Your task to perform on an android device: uninstall "Messenger Lite" Image 0: 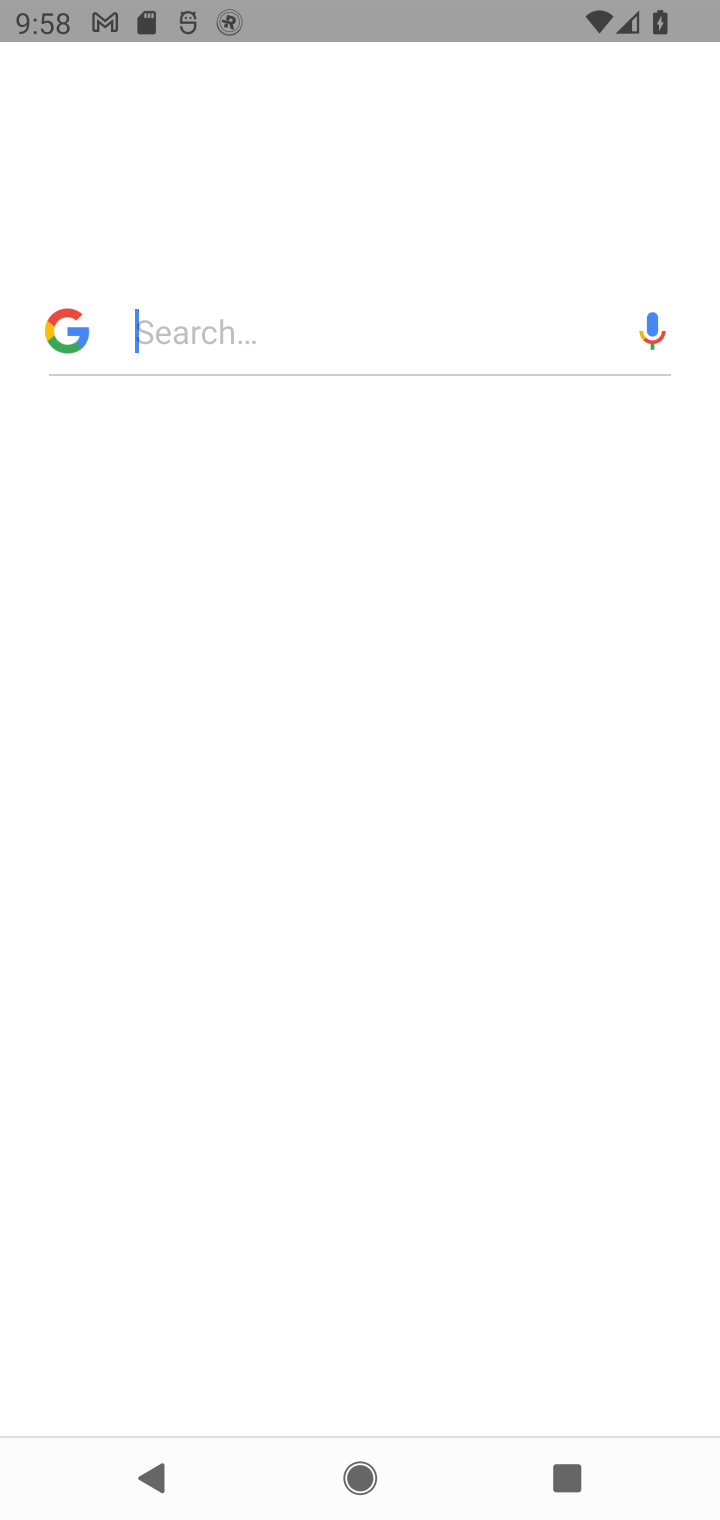
Step 0: press home button
Your task to perform on an android device: uninstall "Messenger Lite" Image 1: 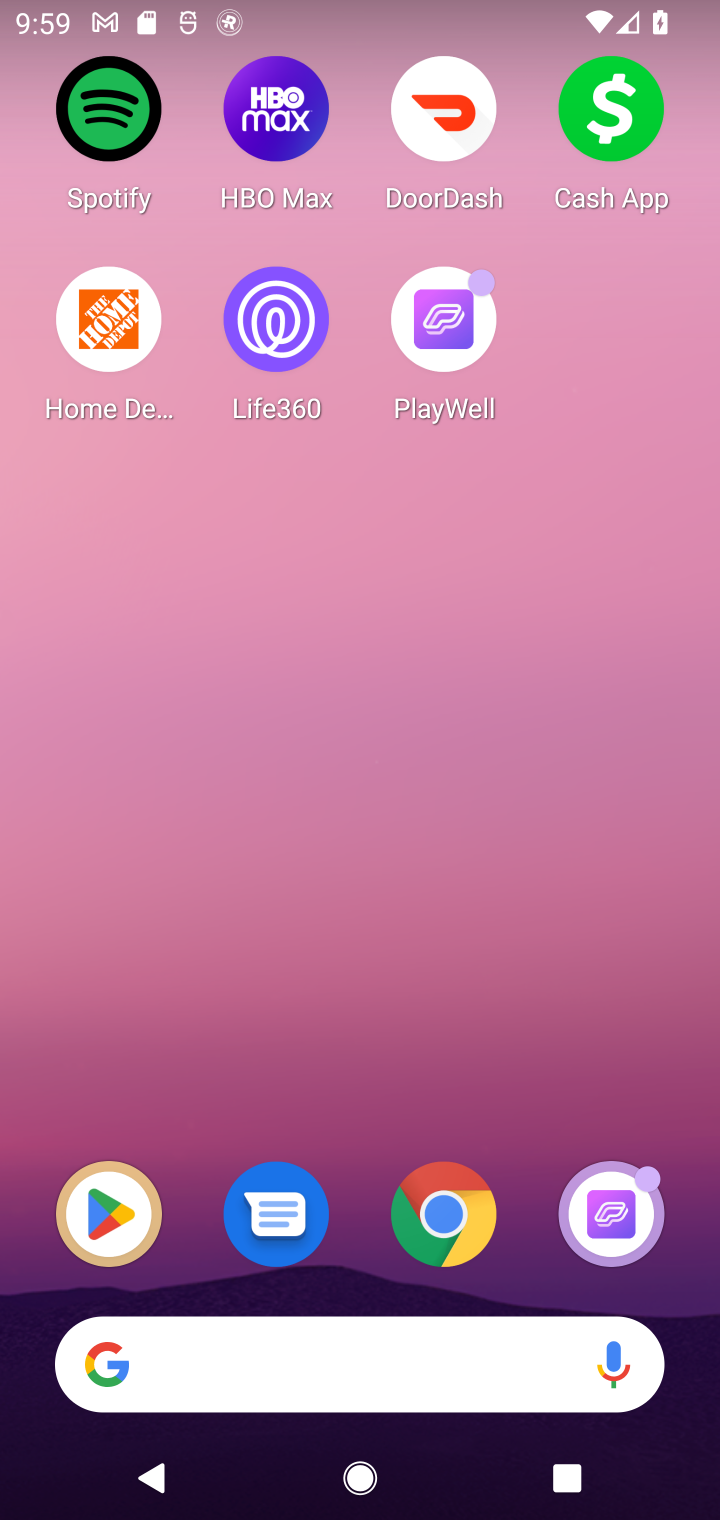
Step 1: click (114, 1193)
Your task to perform on an android device: uninstall "Messenger Lite" Image 2: 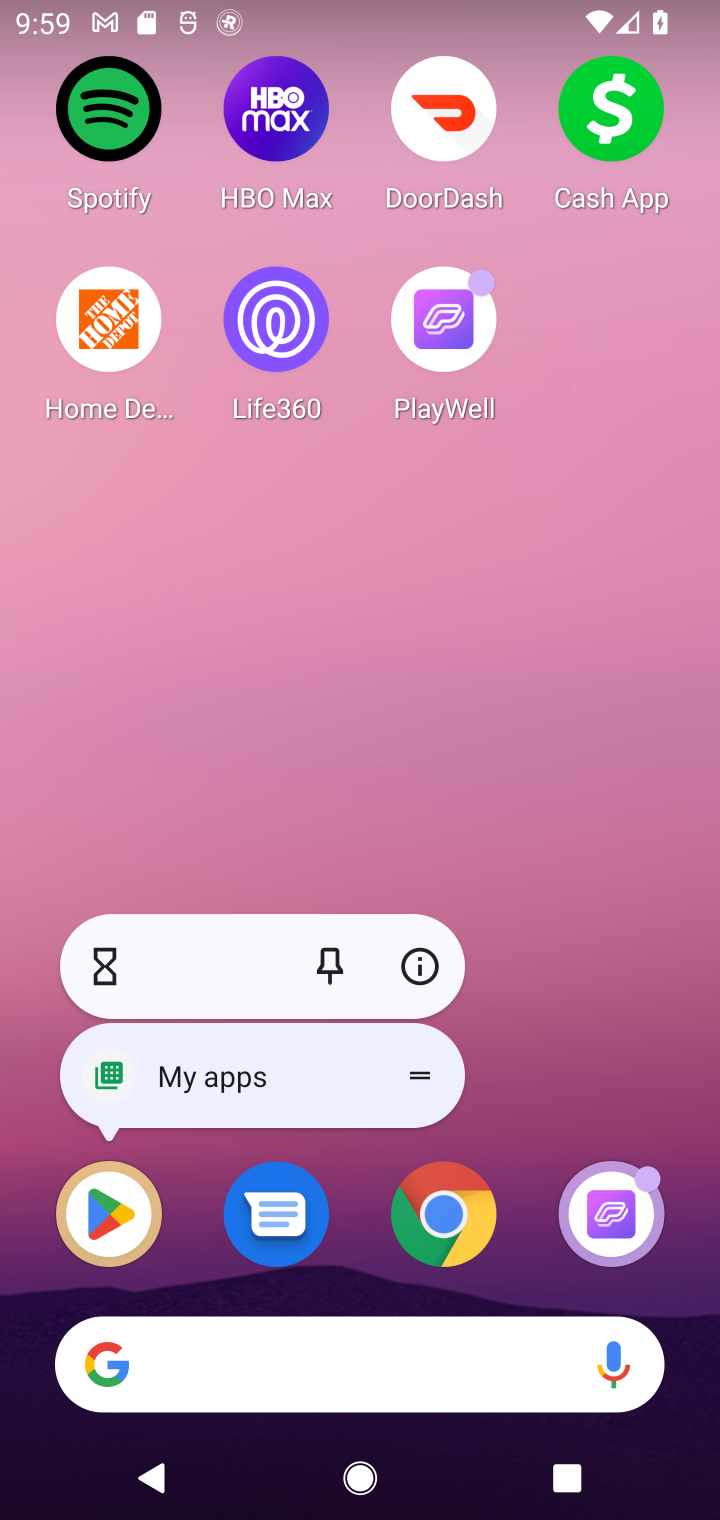
Step 2: click (98, 1201)
Your task to perform on an android device: uninstall "Messenger Lite" Image 3: 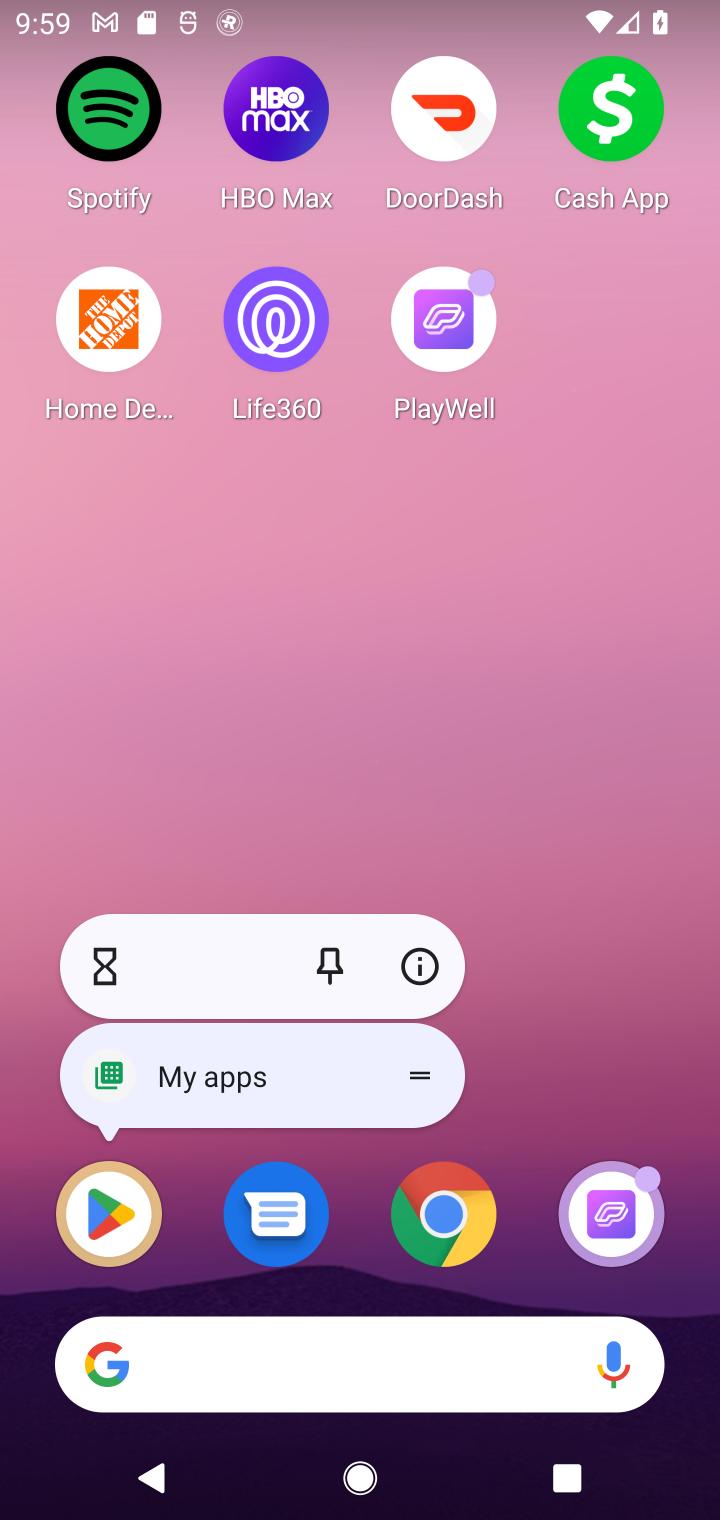
Step 3: click (106, 1210)
Your task to perform on an android device: uninstall "Messenger Lite" Image 4: 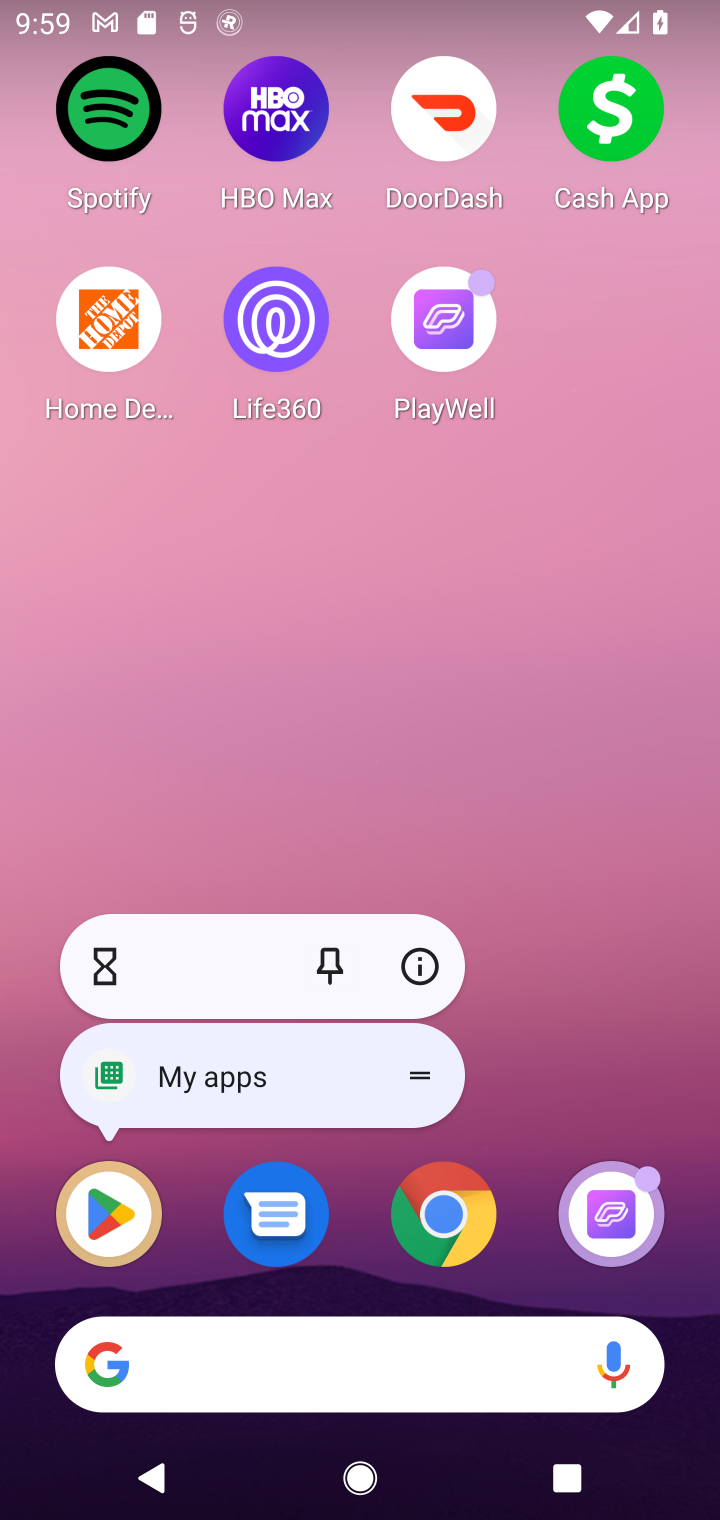
Step 4: click (106, 1210)
Your task to perform on an android device: uninstall "Messenger Lite" Image 5: 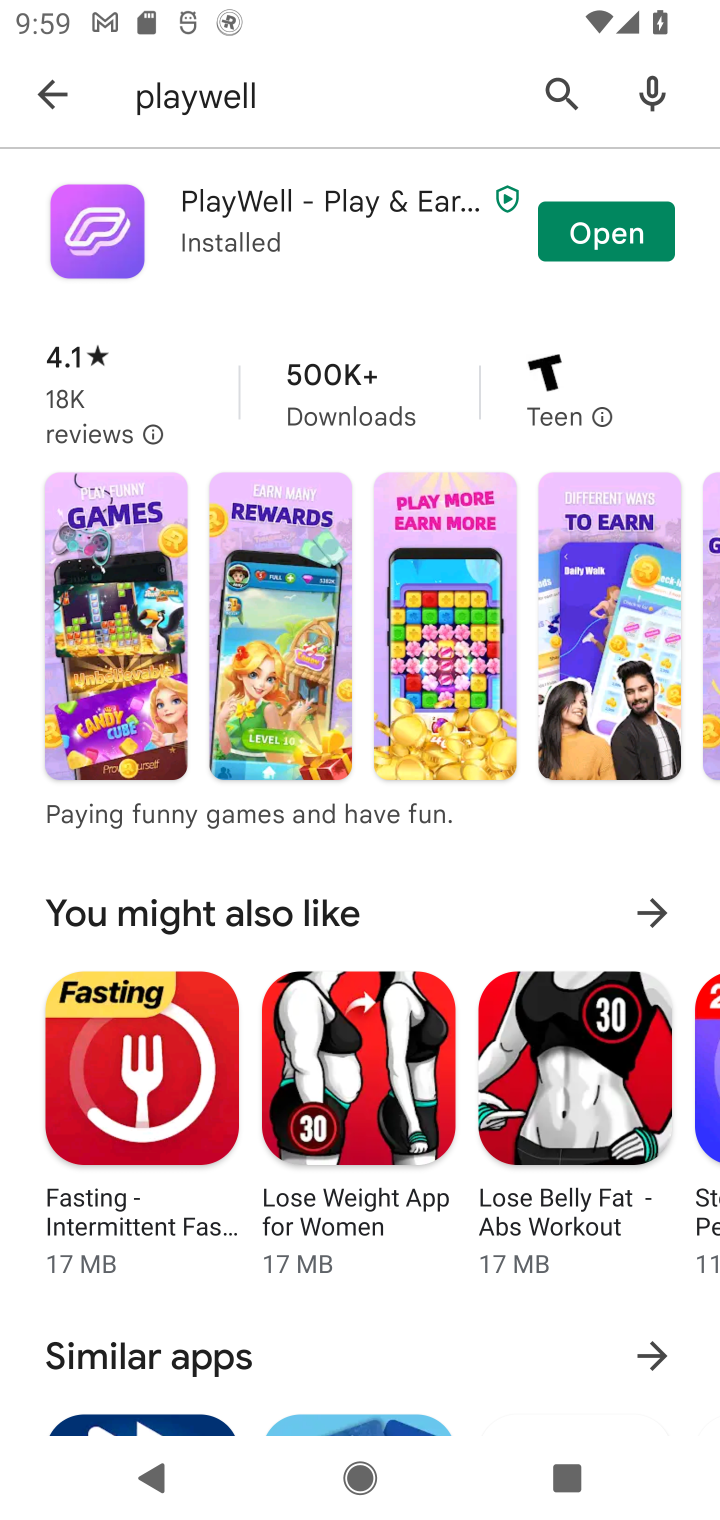
Step 5: click (542, 72)
Your task to perform on an android device: uninstall "Messenger Lite" Image 6: 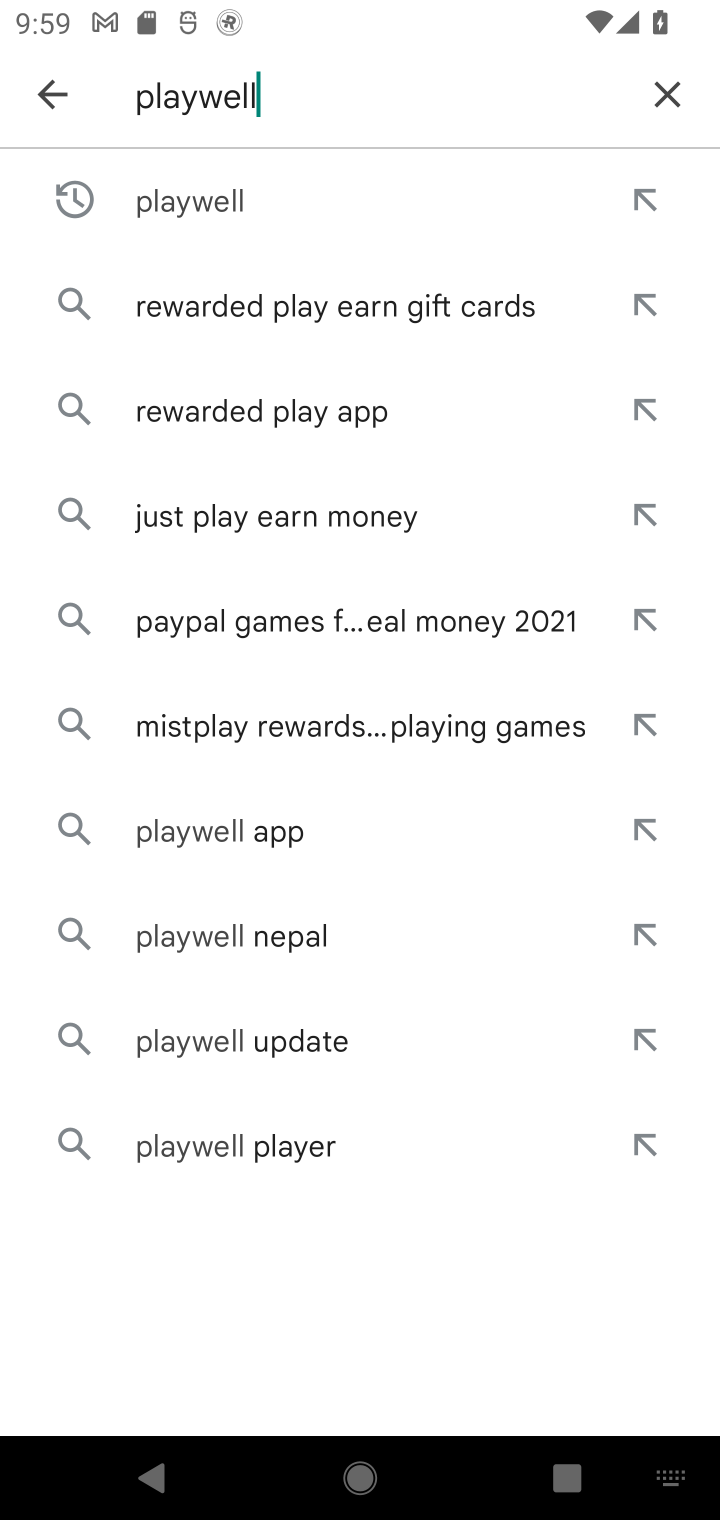
Step 6: click (666, 81)
Your task to perform on an android device: uninstall "Messenger Lite" Image 7: 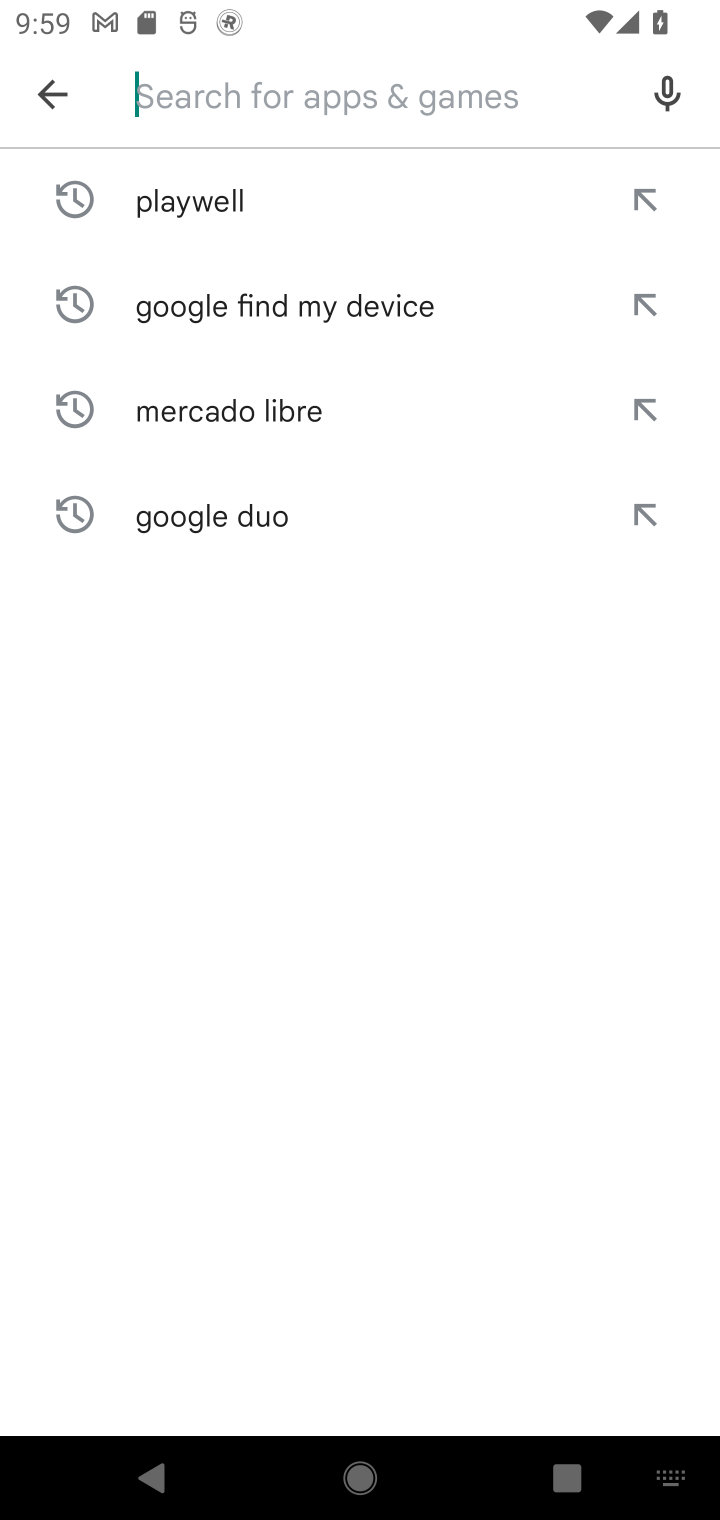
Step 7: type "Messenger Lite"
Your task to perform on an android device: uninstall "Messenger Lite" Image 8: 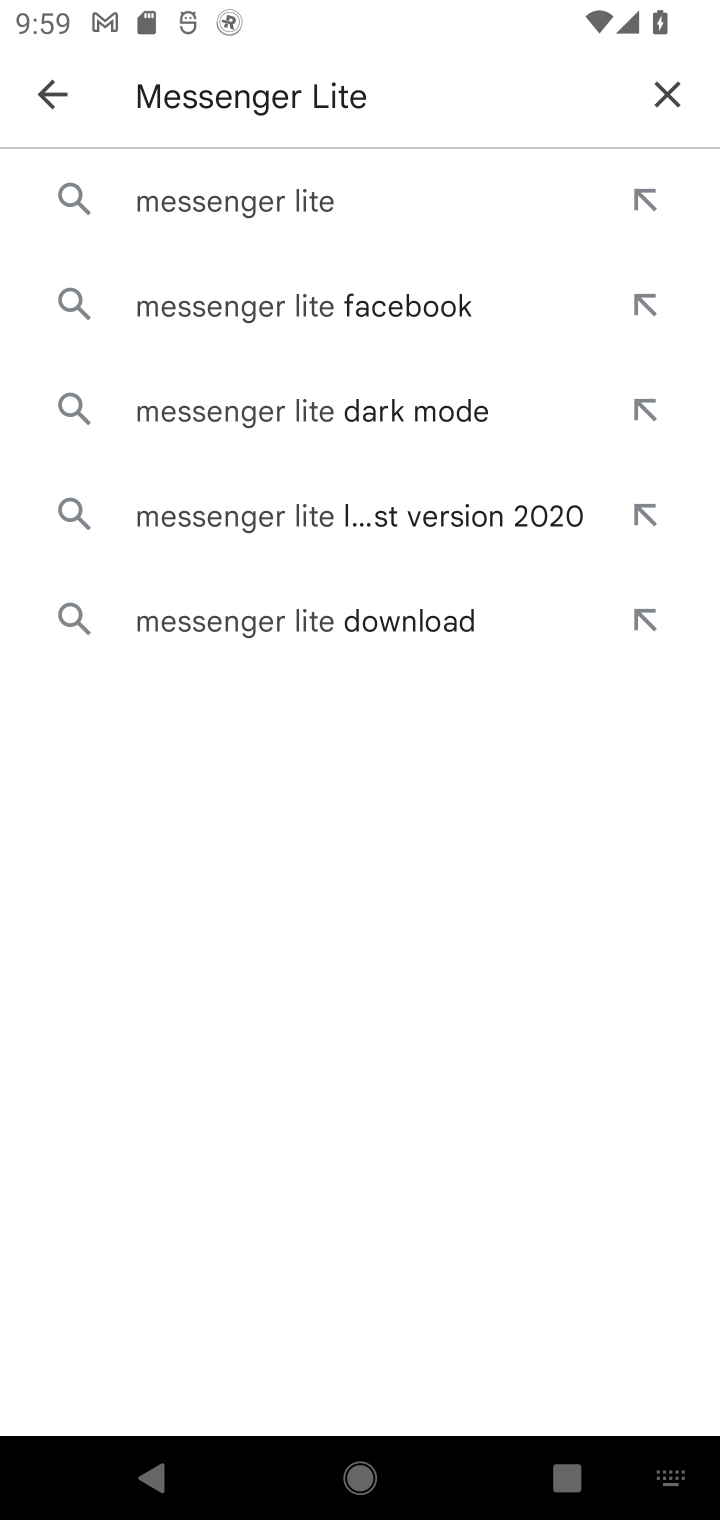
Step 8: click (269, 202)
Your task to perform on an android device: uninstall "Messenger Lite" Image 9: 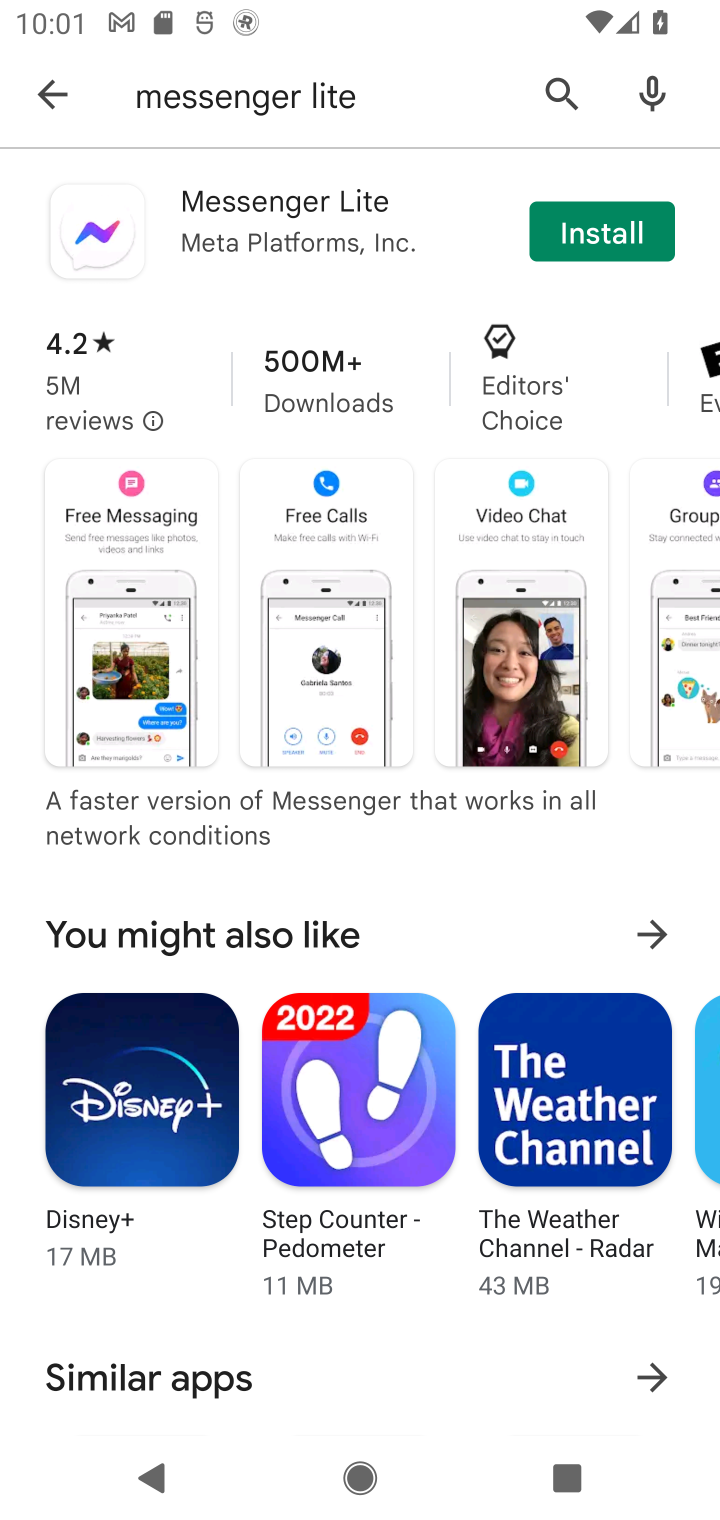
Step 9: task complete